Your task to perform on an android device: Open Yahoo.com Image 0: 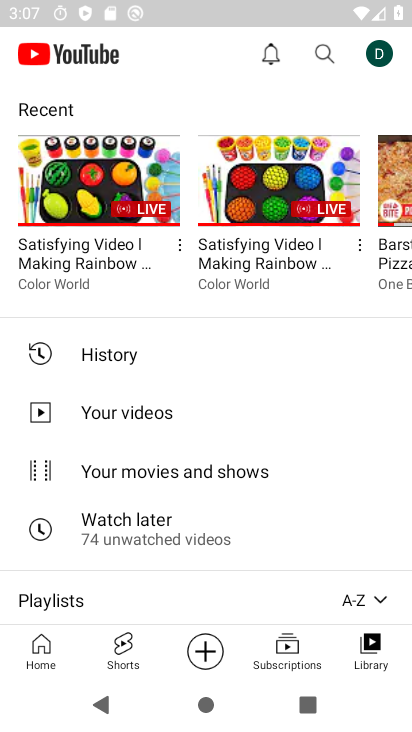
Step 0: press home button
Your task to perform on an android device: Open Yahoo.com Image 1: 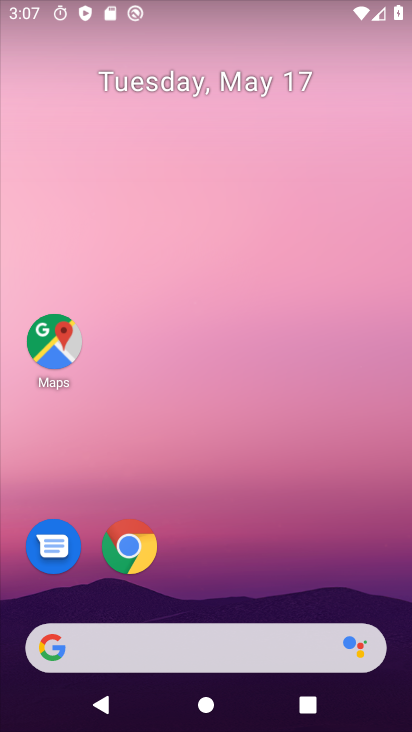
Step 1: click (135, 532)
Your task to perform on an android device: Open Yahoo.com Image 2: 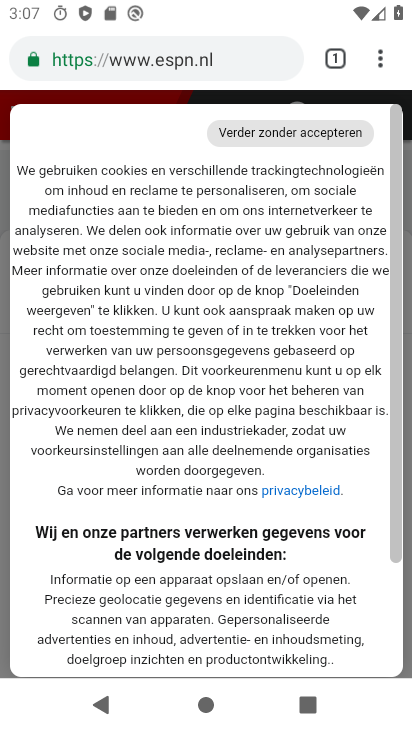
Step 2: click (228, 67)
Your task to perform on an android device: Open Yahoo.com Image 3: 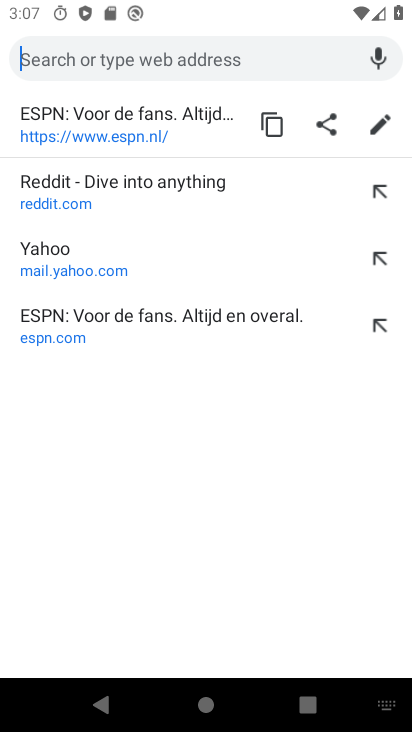
Step 3: click (178, 271)
Your task to perform on an android device: Open Yahoo.com Image 4: 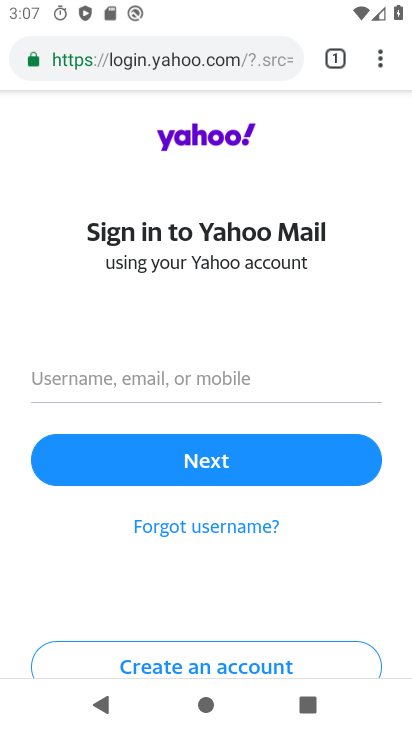
Step 4: task complete